Your task to perform on an android device: What is the recent news? Image 0: 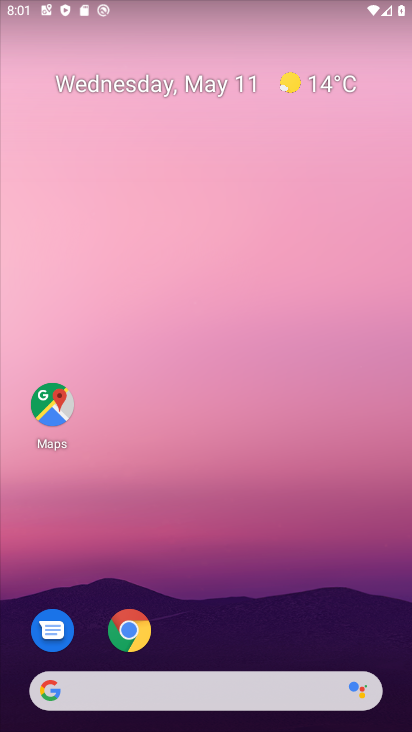
Step 0: click (241, 671)
Your task to perform on an android device: What is the recent news? Image 1: 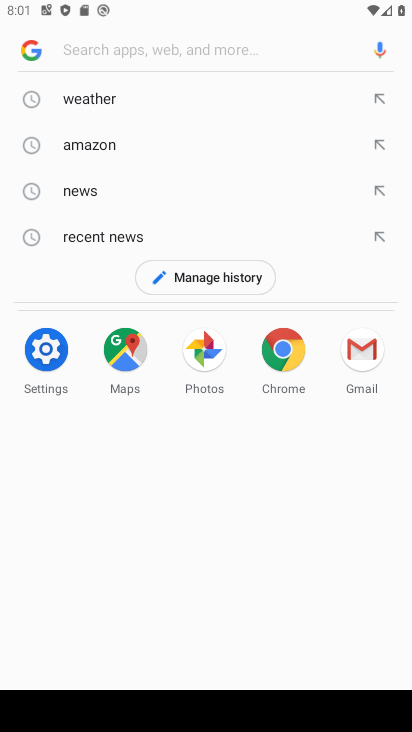
Step 1: click (84, 197)
Your task to perform on an android device: What is the recent news? Image 2: 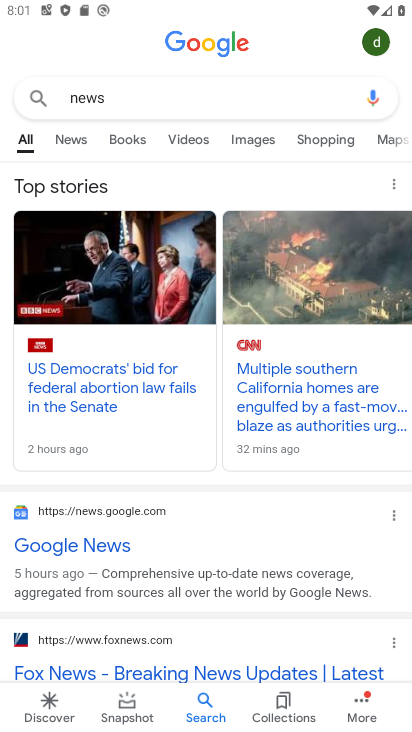
Step 2: task complete